Your task to perform on an android device: Go to Maps Image 0: 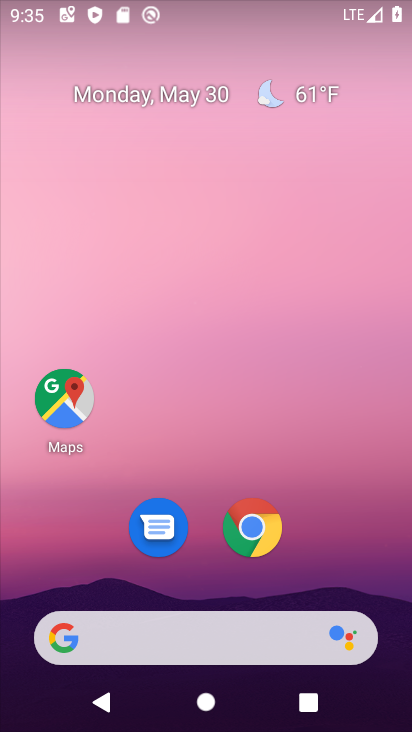
Step 0: click (59, 392)
Your task to perform on an android device: Go to Maps Image 1: 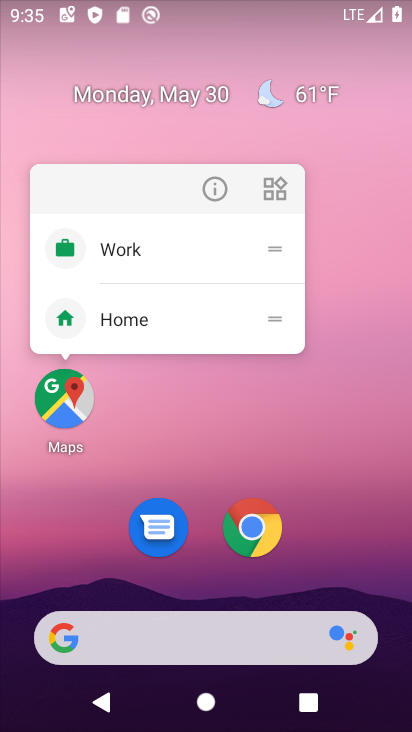
Step 1: click (82, 407)
Your task to perform on an android device: Go to Maps Image 2: 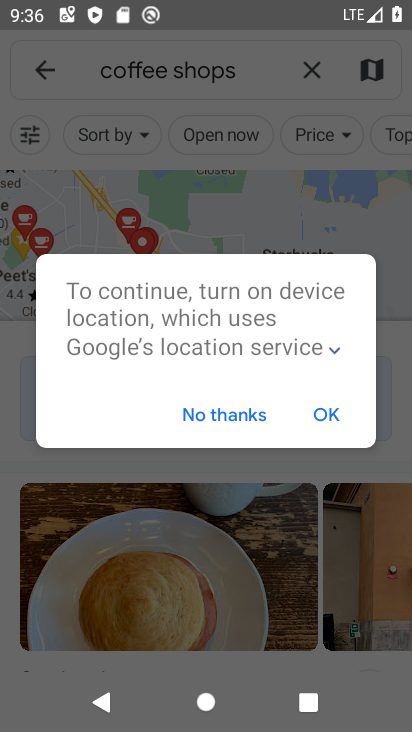
Step 2: click (242, 416)
Your task to perform on an android device: Go to Maps Image 3: 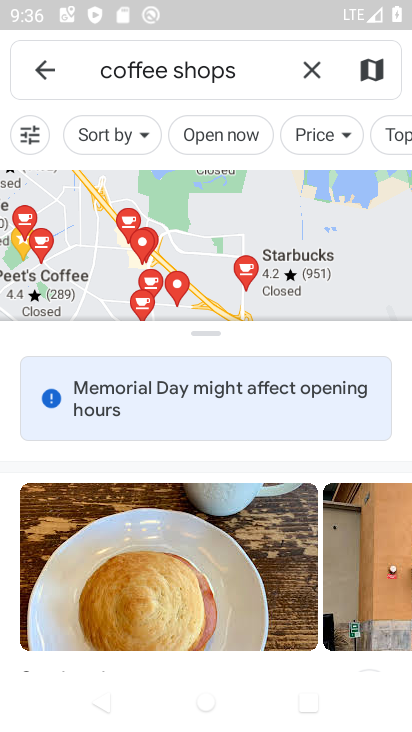
Step 3: click (52, 71)
Your task to perform on an android device: Go to Maps Image 4: 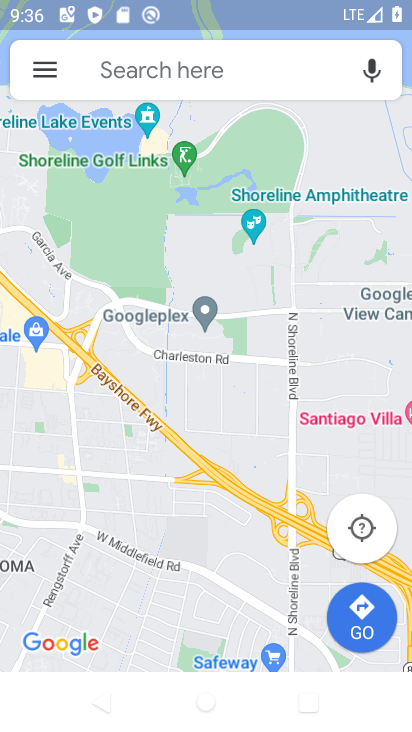
Step 4: task complete